Your task to perform on an android device: open wifi settings Image 0: 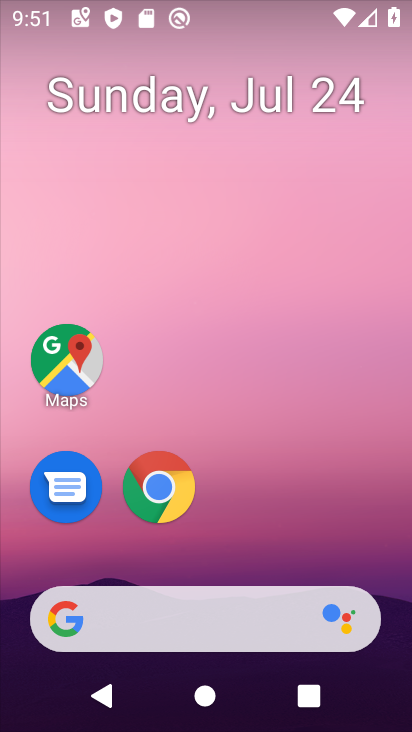
Step 0: drag from (193, 18) to (255, 565)
Your task to perform on an android device: open wifi settings Image 1: 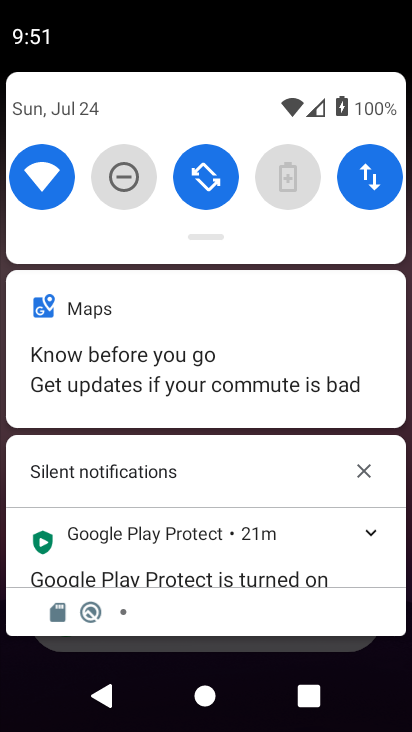
Step 1: click (50, 182)
Your task to perform on an android device: open wifi settings Image 2: 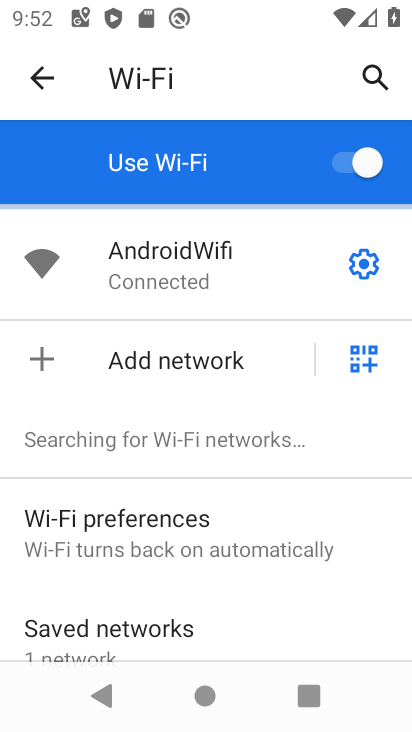
Step 2: task complete